Your task to perform on an android device: check android version Image 0: 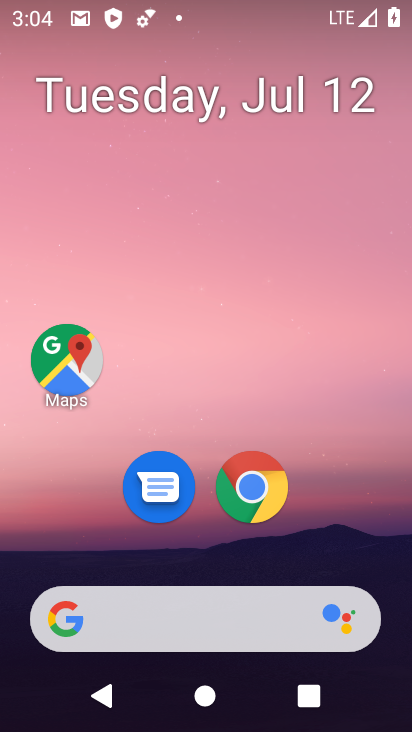
Step 0: drag from (216, 552) to (284, 196)
Your task to perform on an android device: check android version Image 1: 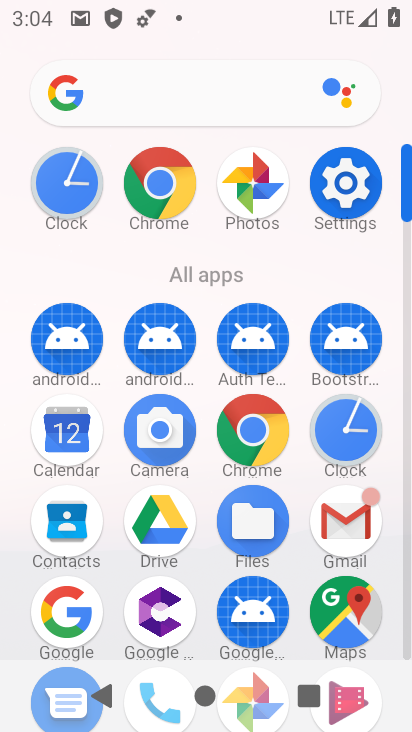
Step 1: click (353, 191)
Your task to perform on an android device: check android version Image 2: 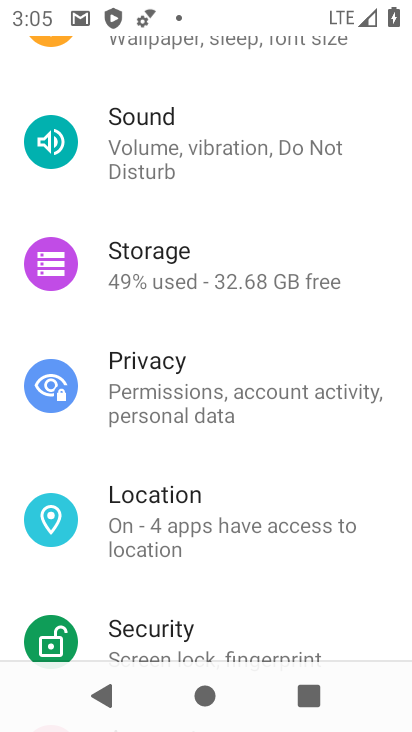
Step 2: drag from (253, 493) to (333, 68)
Your task to perform on an android device: check android version Image 3: 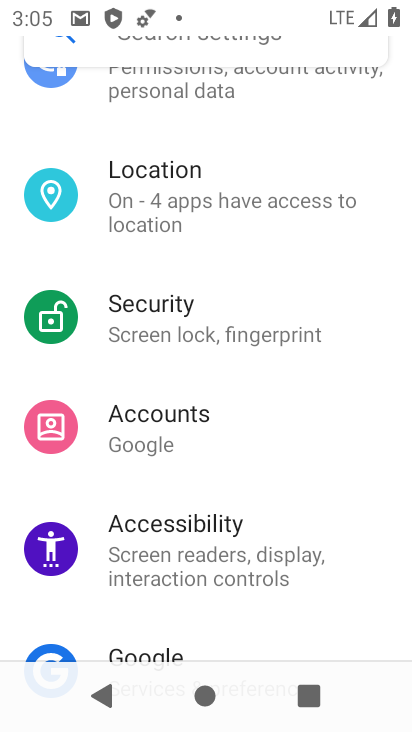
Step 3: drag from (219, 527) to (248, 137)
Your task to perform on an android device: check android version Image 4: 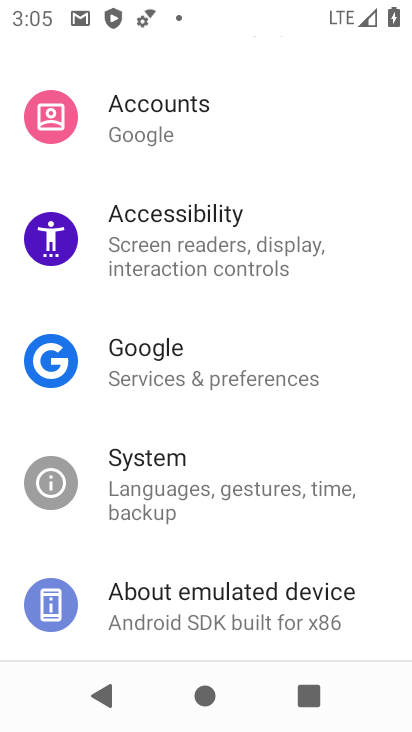
Step 4: drag from (174, 574) to (172, 139)
Your task to perform on an android device: check android version Image 5: 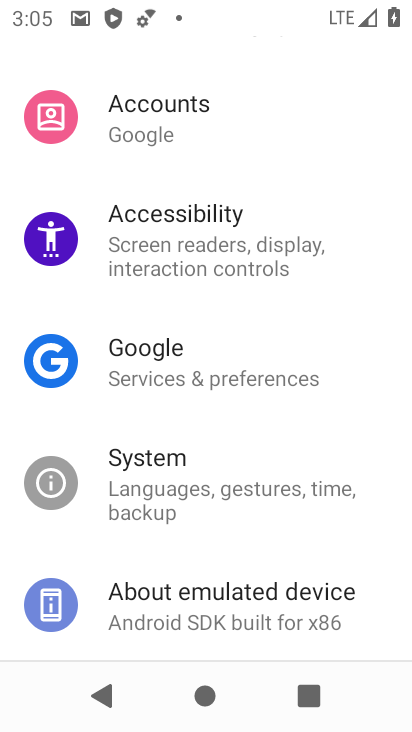
Step 5: click (217, 622)
Your task to perform on an android device: check android version Image 6: 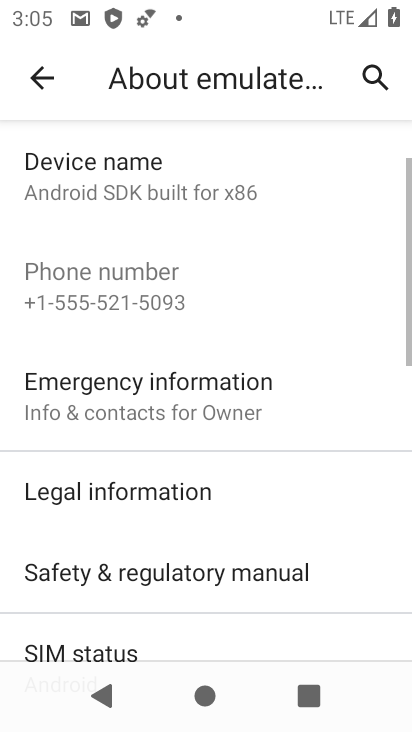
Step 6: drag from (214, 571) to (277, 186)
Your task to perform on an android device: check android version Image 7: 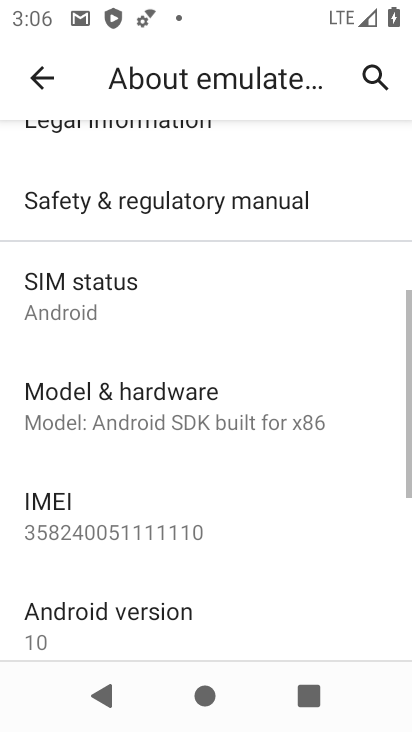
Step 7: drag from (161, 482) to (251, 124)
Your task to perform on an android device: check android version Image 8: 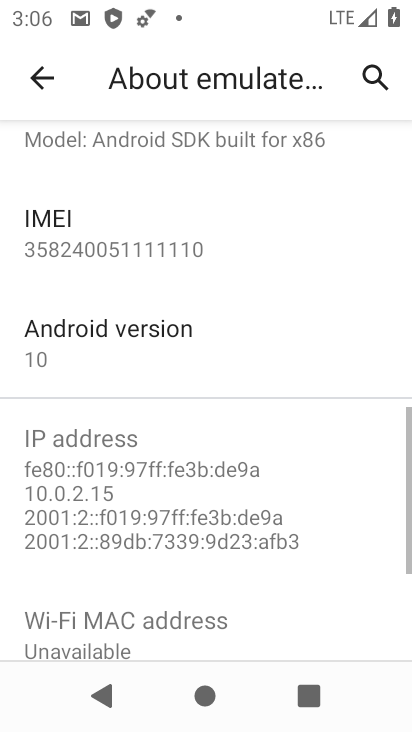
Step 8: click (142, 358)
Your task to perform on an android device: check android version Image 9: 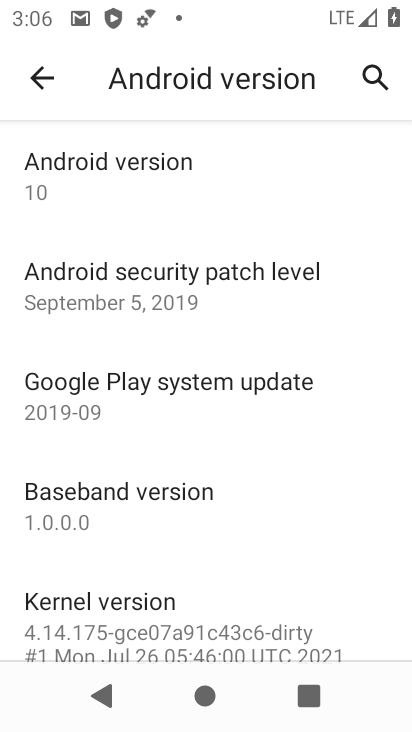
Step 9: click (227, 184)
Your task to perform on an android device: check android version Image 10: 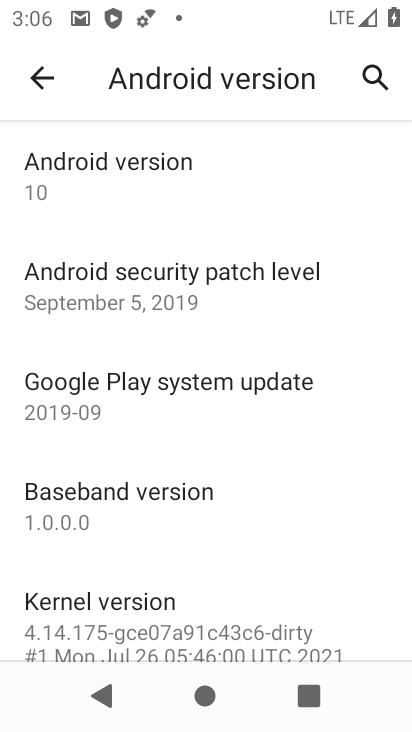
Step 10: task complete